Your task to perform on an android device: turn on improve location accuracy Image 0: 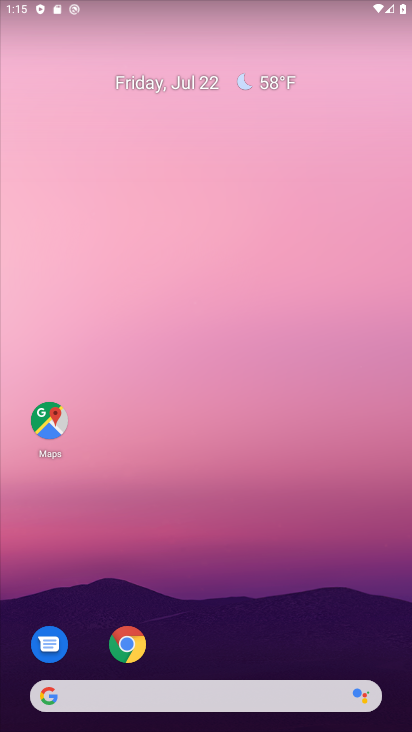
Step 0: drag from (252, 663) to (252, 123)
Your task to perform on an android device: turn on improve location accuracy Image 1: 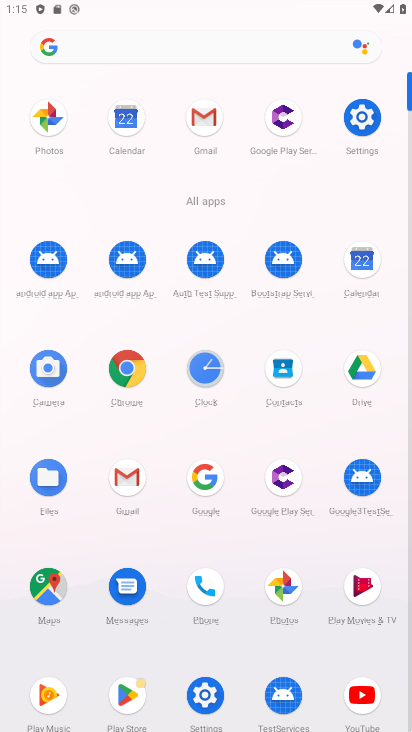
Step 1: click (365, 125)
Your task to perform on an android device: turn on improve location accuracy Image 2: 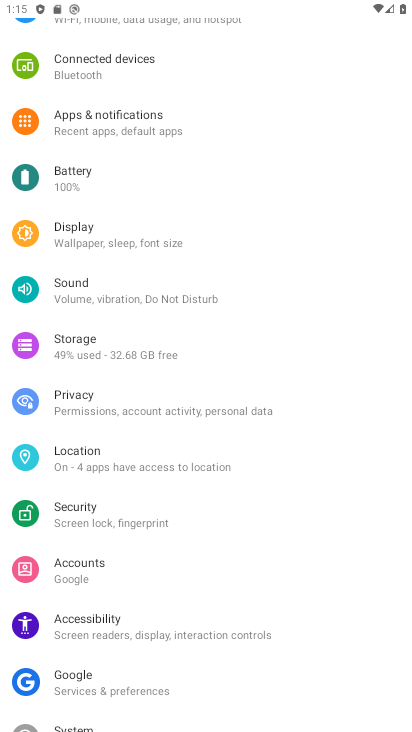
Step 2: click (94, 459)
Your task to perform on an android device: turn on improve location accuracy Image 3: 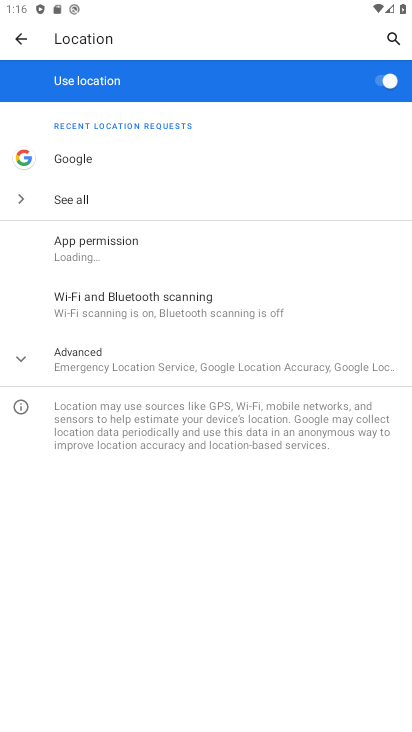
Step 3: click (100, 360)
Your task to perform on an android device: turn on improve location accuracy Image 4: 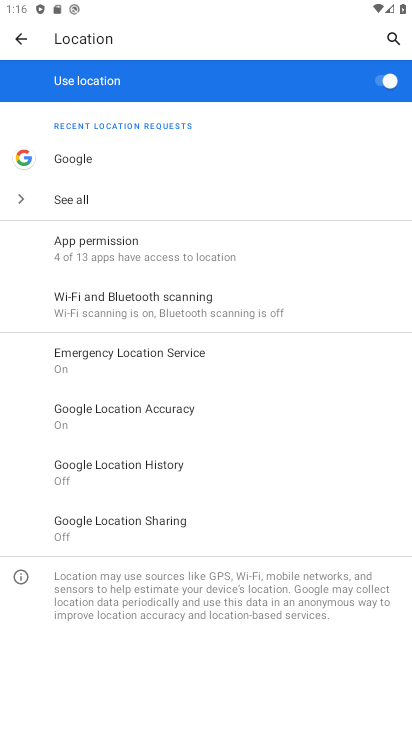
Step 4: click (161, 421)
Your task to perform on an android device: turn on improve location accuracy Image 5: 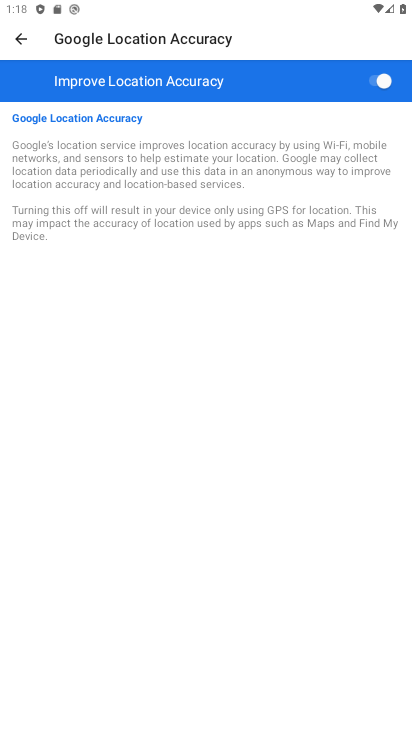
Step 5: task complete